Your task to perform on an android device: Open battery settings Image 0: 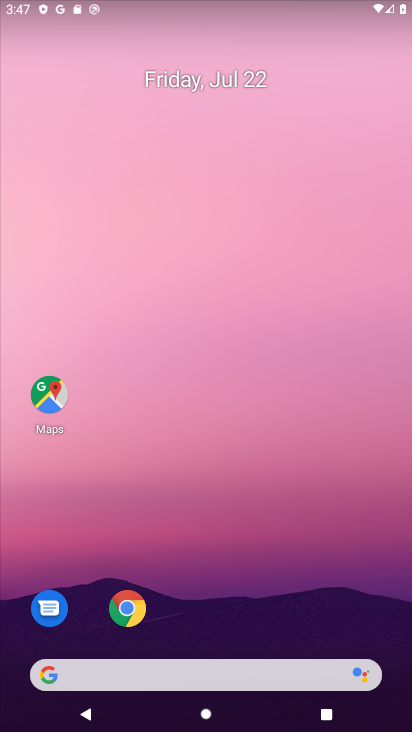
Step 0: task complete